Your task to perform on an android device: Open Reddit.com Image 0: 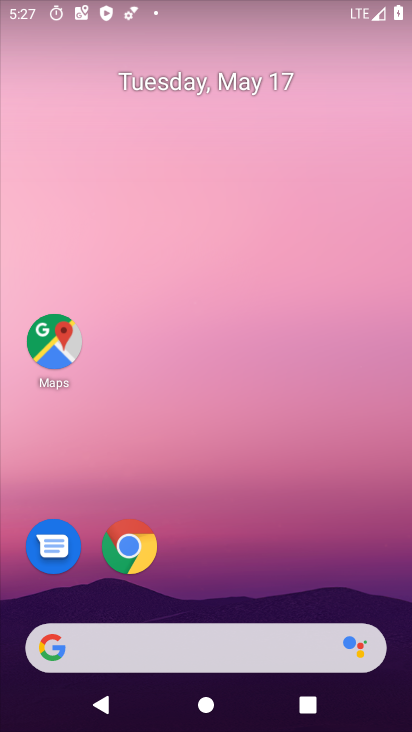
Step 0: click (127, 555)
Your task to perform on an android device: Open Reddit.com Image 1: 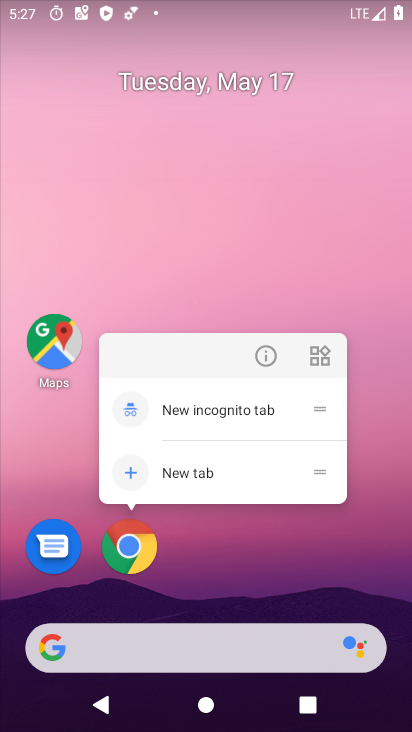
Step 1: click (121, 547)
Your task to perform on an android device: Open Reddit.com Image 2: 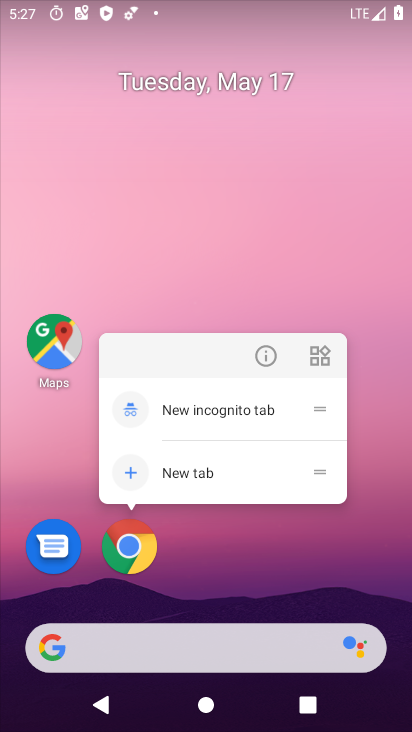
Step 2: click (124, 556)
Your task to perform on an android device: Open Reddit.com Image 3: 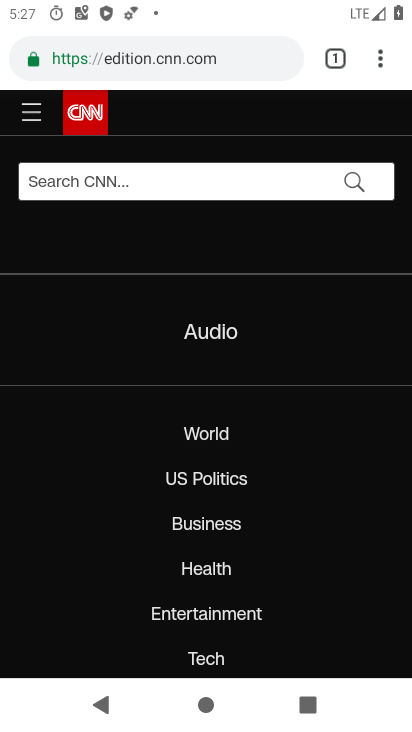
Step 3: click (227, 62)
Your task to perform on an android device: Open Reddit.com Image 4: 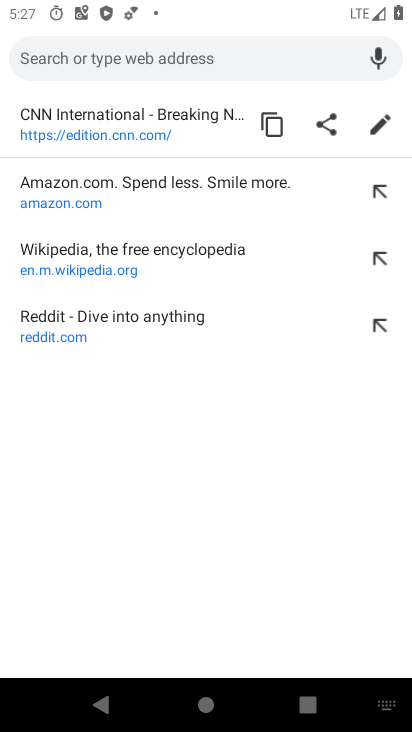
Step 4: type "www.reddit.com"
Your task to perform on an android device: Open Reddit.com Image 5: 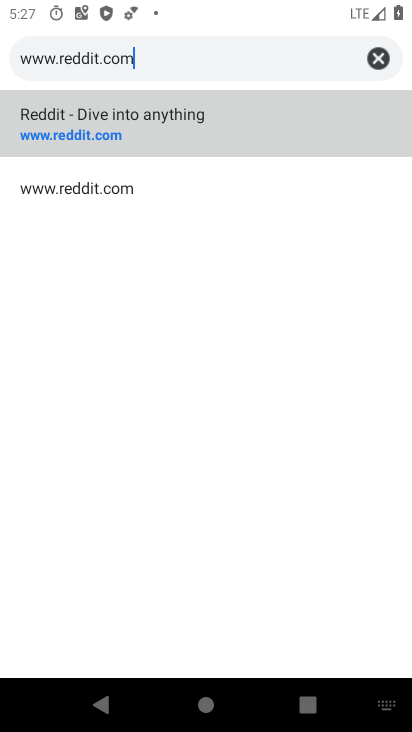
Step 5: click (80, 136)
Your task to perform on an android device: Open Reddit.com Image 6: 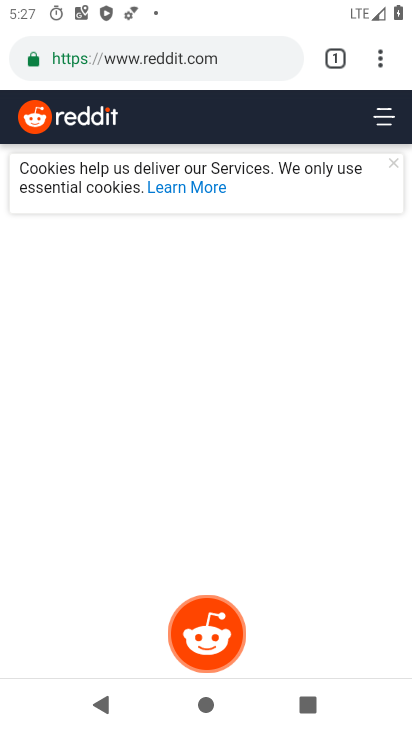
Step 6: task complete